Your task to perform on an android device: Search for seafood restaurants on Google Maps Image 0: 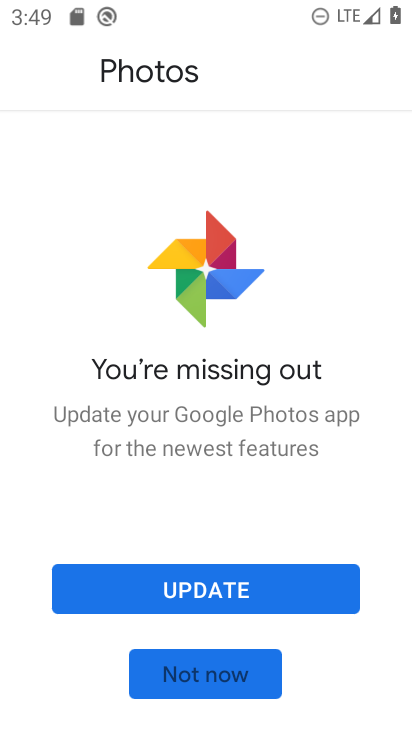
Step 0: press home button
Your task to perform on an android device: Search for seafood restaurants on Google Maps Image 1: 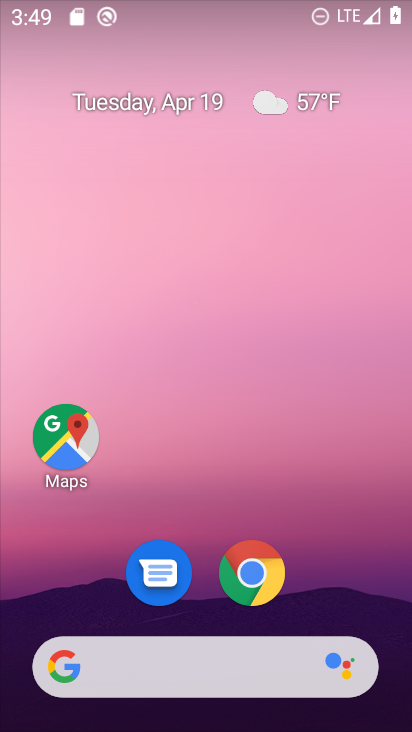
Step 1: click (67, 428)
Your task to perform on an android device: Search for seafood restaurants on Google Maps Image 2: 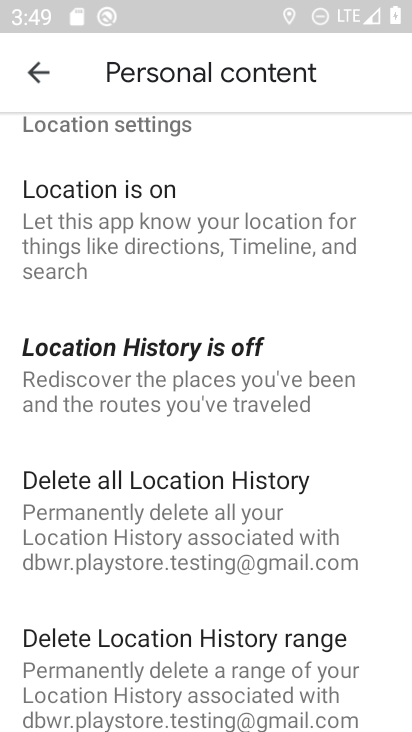
Step 2: click (33, 81)
Your task to perform on an android device: Search for seafood restaurants on Google Maps Image 3: 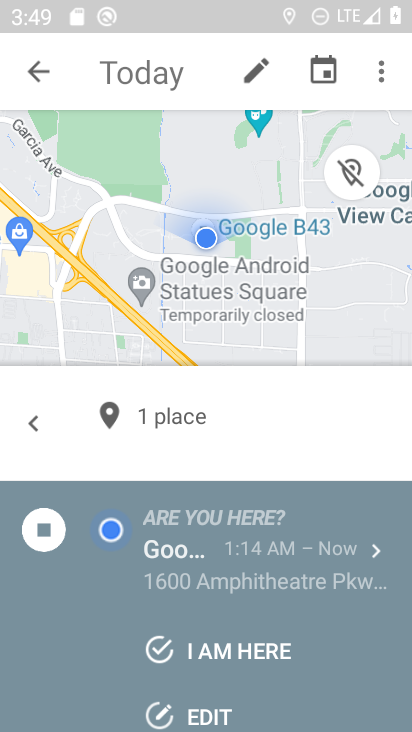
Step 3: click (33, 81)
Your task to perform on an android device: Search for seafood restaurants on Google Maps Image 4: 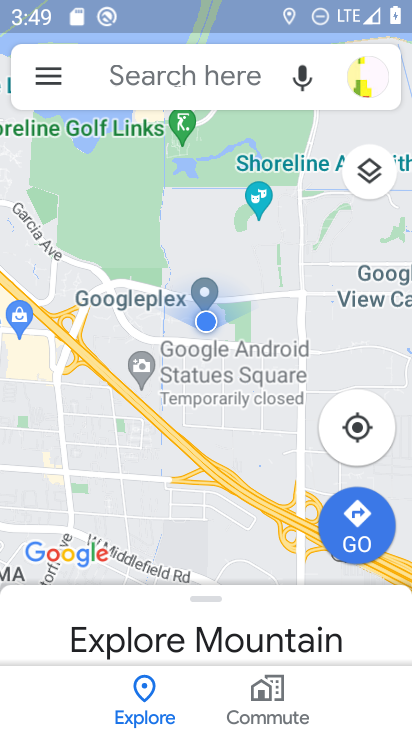
Step 4: click (112, 78)
Your task to perform on an android device: Search for seafood restaurants on Google Maps Image 5: 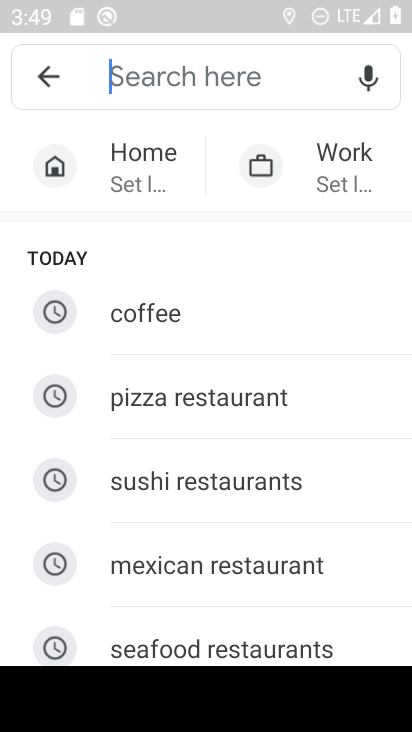
Step 5: type "seafood restaurant"
Your task to perform on an android device: Search for seafood restaurants on Google Maps Image 6: 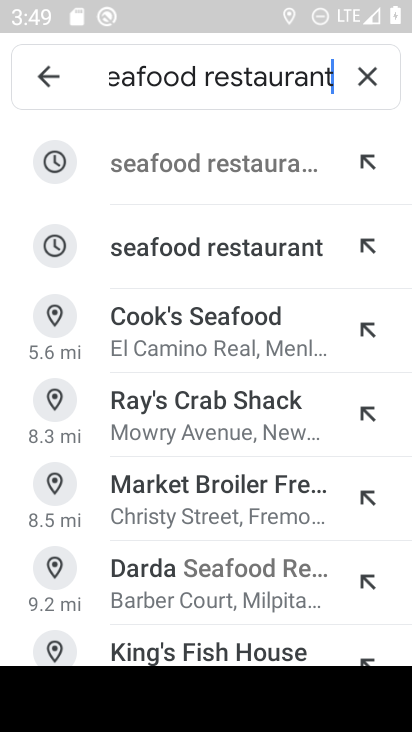
Step 6: click (184, 164)
Your task to perform on an android device: Search for seafood restaurants on Google Maps Image 7: 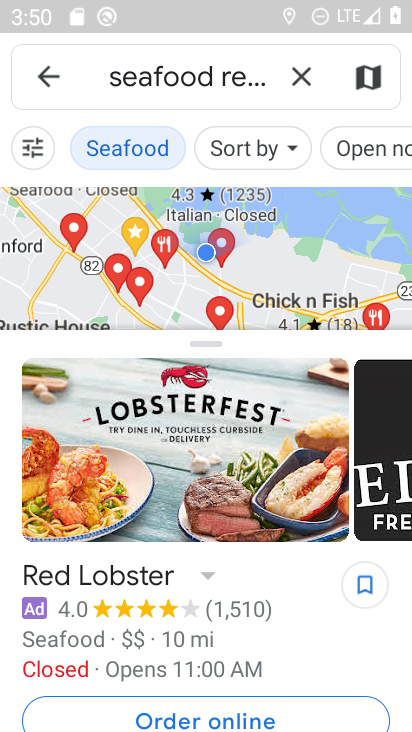
Step 7: task complete